Your task to perform on an android device: turn on airplane mode Image 0: 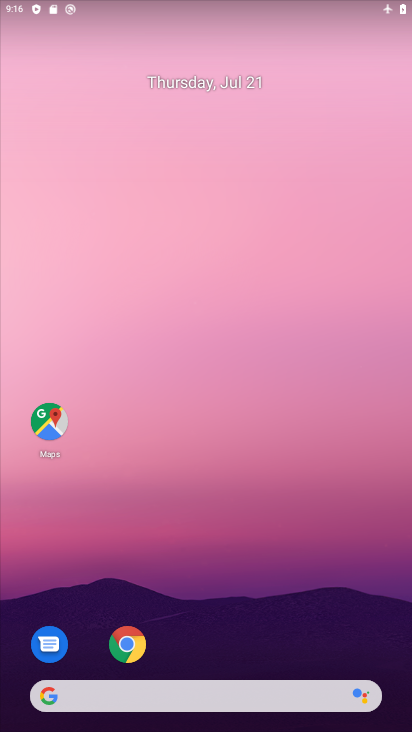
Step 0: drag from (195, 656) to (207, 105)
Your task to perform on an android device: turn on airplane mode Image 1: 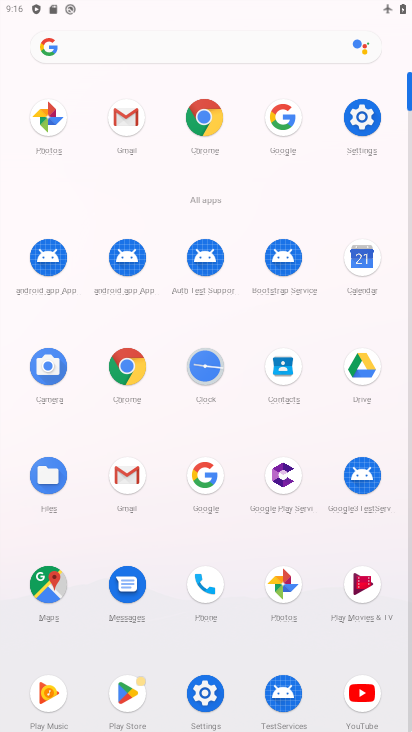
Step 1: click (342, 121)
Your task to perform on an android device: turn on airplane mode Image 2: 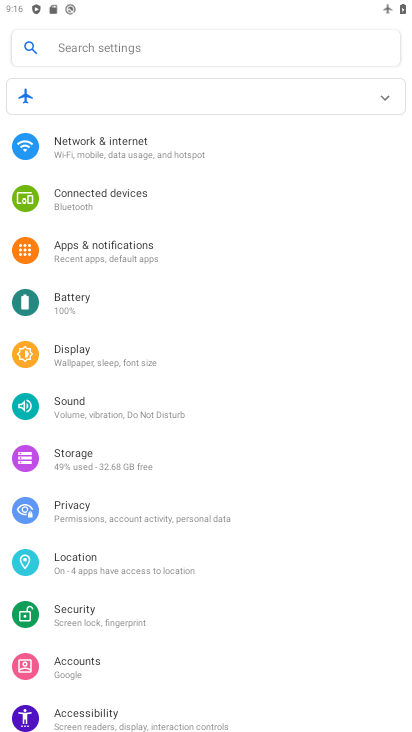
Step 2: click (105, 156)
Your task to perform on an android device: turn on airplane mode Image 3: 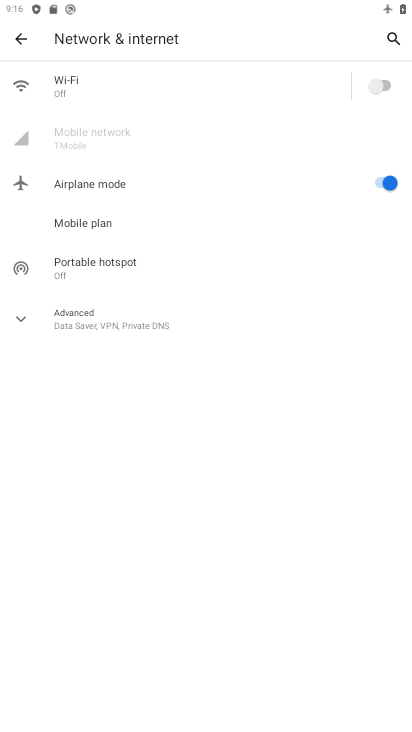
Step 3: task complete